Your task to perform on an android device: Open the web browser Image 0: 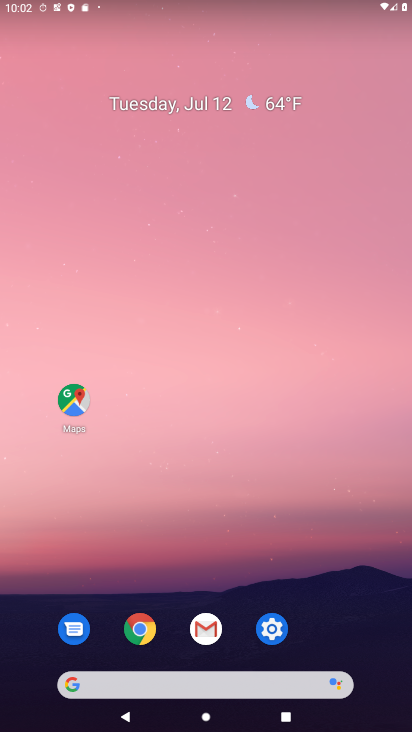
Step 0: click (139, 639)
Your task to perform on an android device: Open the web browser Image 1: 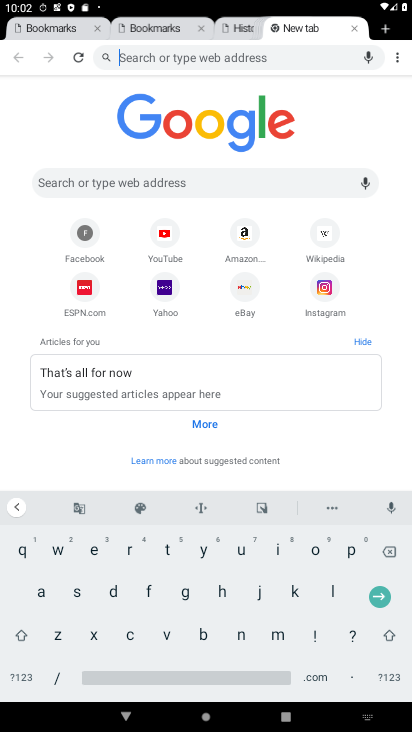
Step 1: click (219, 61)
Your task to perform on an android device: Open the web browser Image 2: 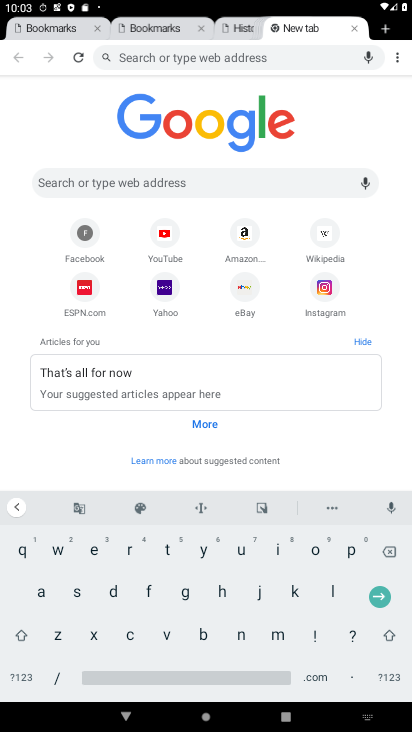
Step 2: task complete